Your task to perform on an android device: Open Chrome and go to settings Image 0: 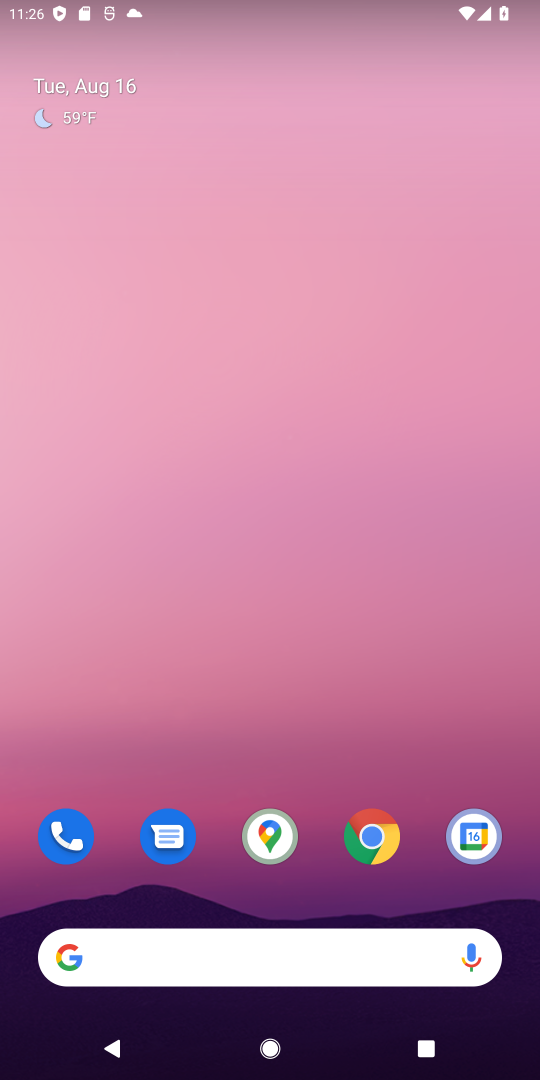
Step 0: click (374, 837)
Your task to perform on an android device: Open Chrome and go to settings Image 1: 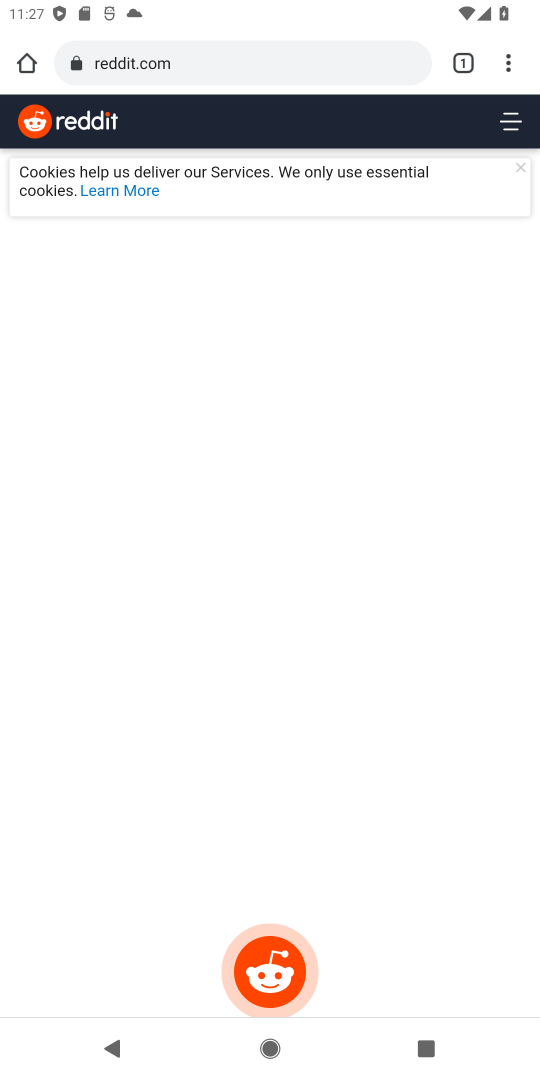
Step 1: click (520, 68)
Your task to perform on an android device: Open Chrome and go to settings Image 2: 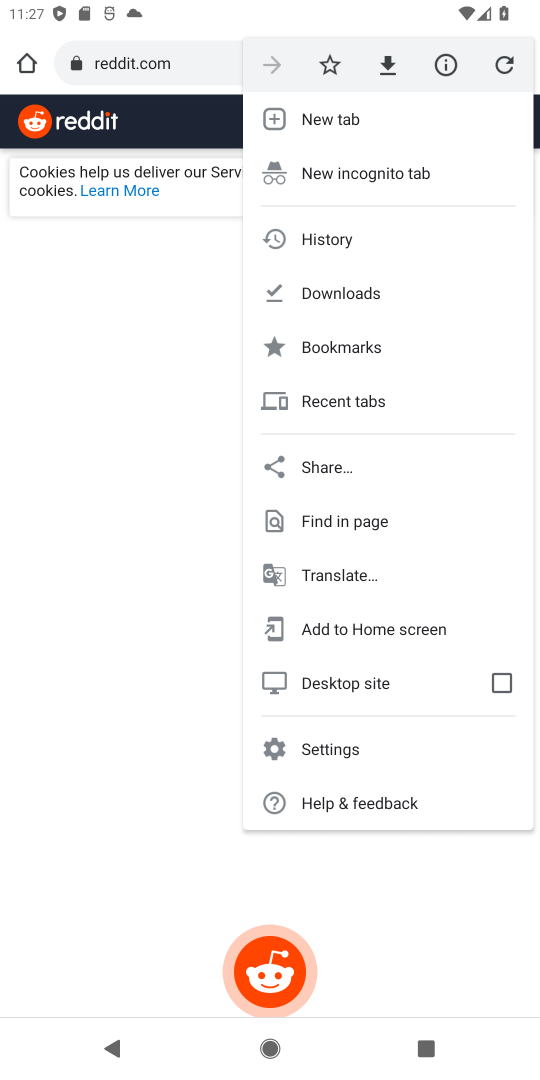
Step 2: click (329, 753)
Your task to perform on an android device: Open Chrome and go to settings Image 3: 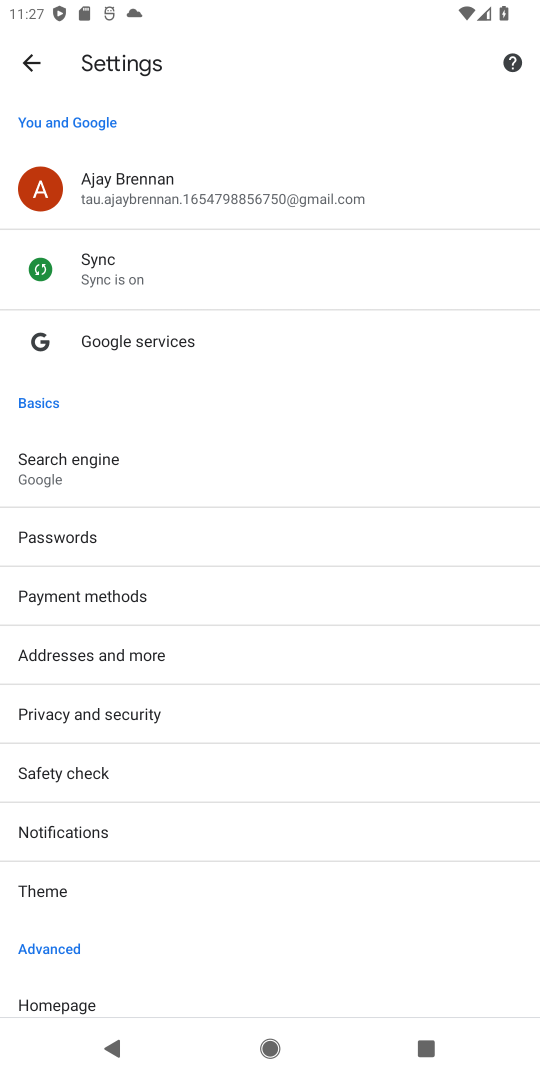
Step 3: task complete